Your task to perform on an android device: Open Chrome and go to the settings page Image 0: 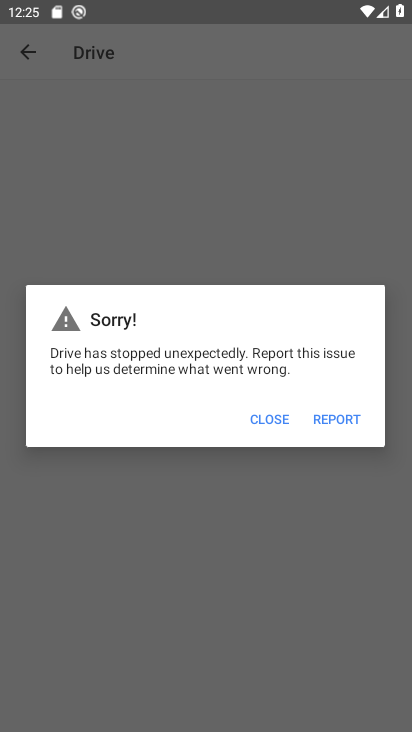
Step 0: press back button
Your task to perform on an android device: Open Chrome and go to the settings page Image 1: 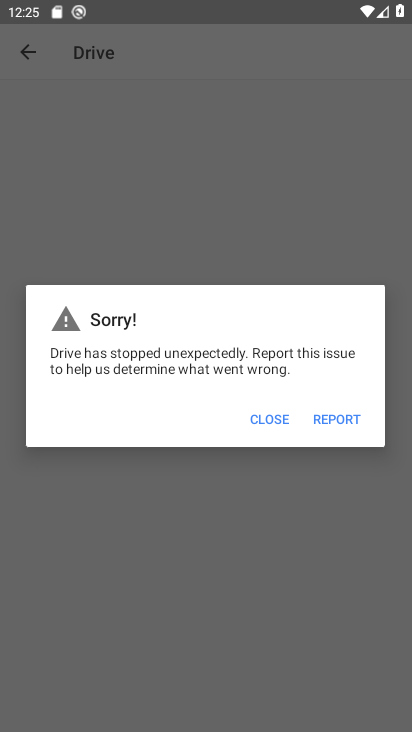
Step 1: press home button
Your task to perform on an android device: Open Chrome and go to the settings page Image 2: 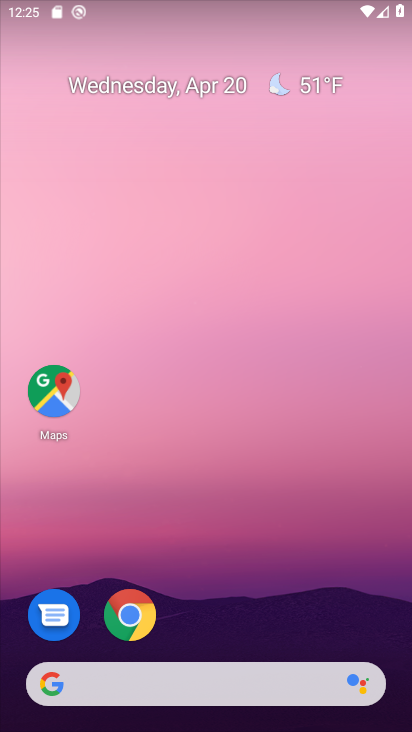
Step 2: click (147, 604)
Your task to perform on an android device: Open Chrome and go to the settings page Image 3: 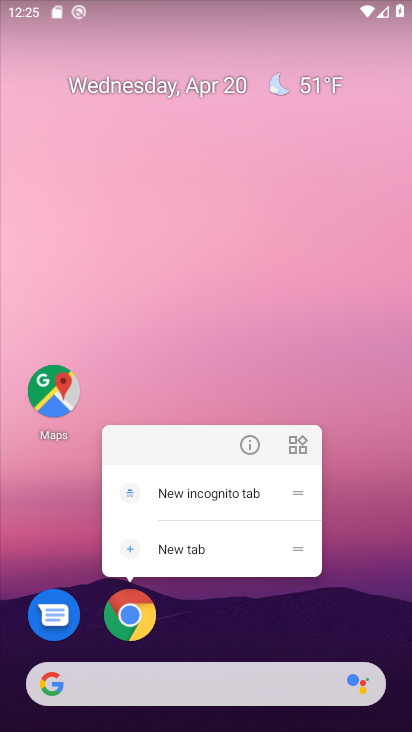
Step 3: click (131, 615)
Your task to perform on an android device: Open Chrome and go to the settings page Image 4: 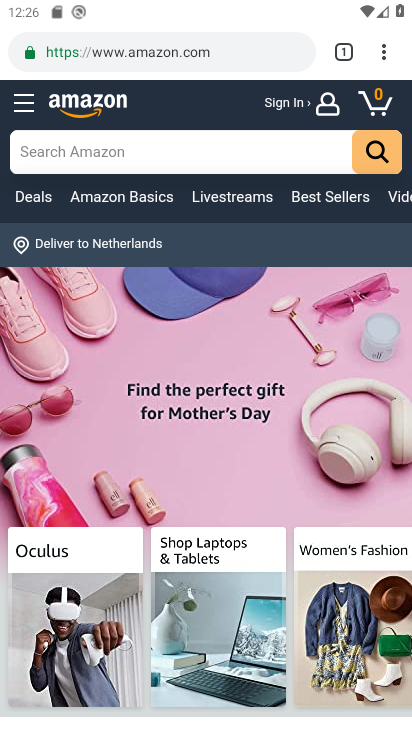
Step 4: task complete